Your task to perform on an android device: Search for flights from Sydney to Buenos aires Image 0: 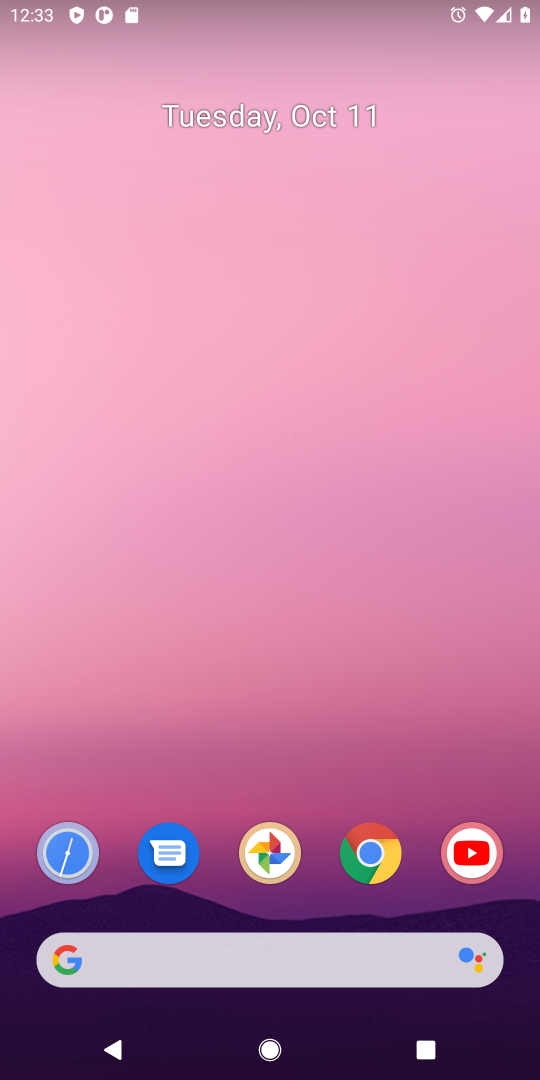
Step 0: drag from (205, 936) to (300, 32)
Your task to perform on an android device: Search for flights from Sydney to Buenos aires Image 1: 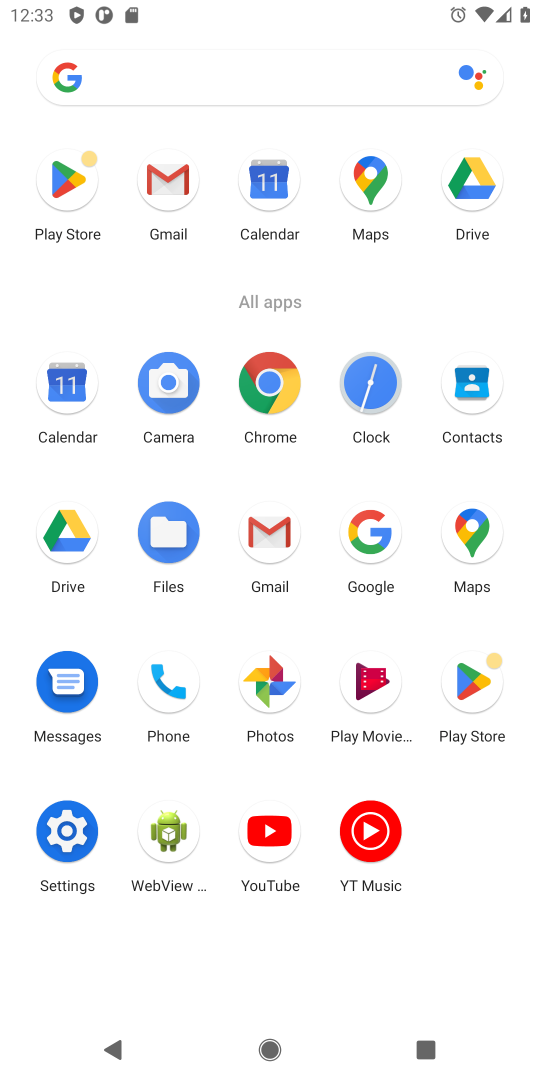
Step 1: click (266, 404)
Your task to perform on an android device: Search for flights from Sydney to Buenos aires Image 2: 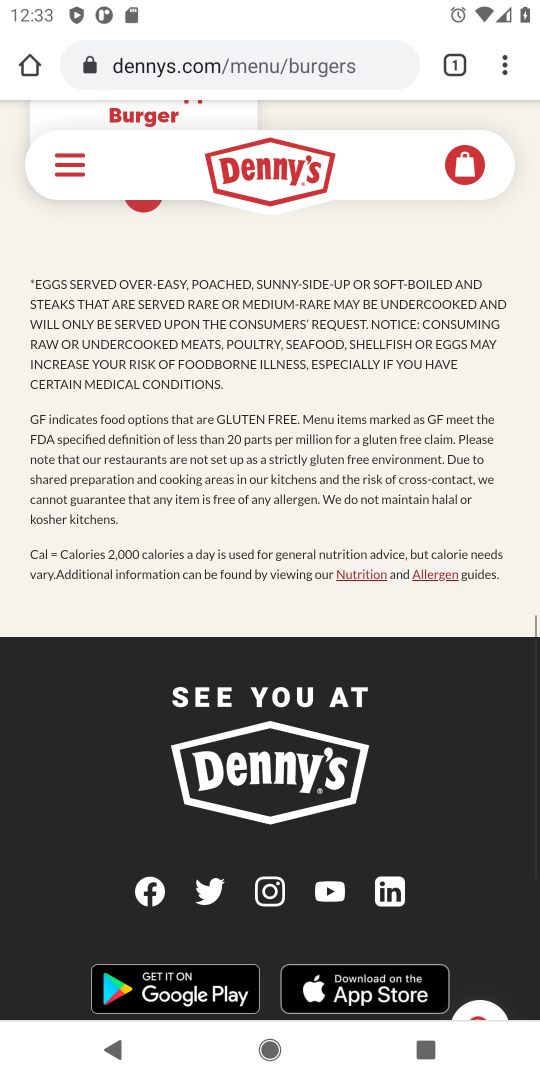
Step 2: click (229, 58)
Your task to perform on an android device: Search for flights from Sydney to Buenos aires Image 3: 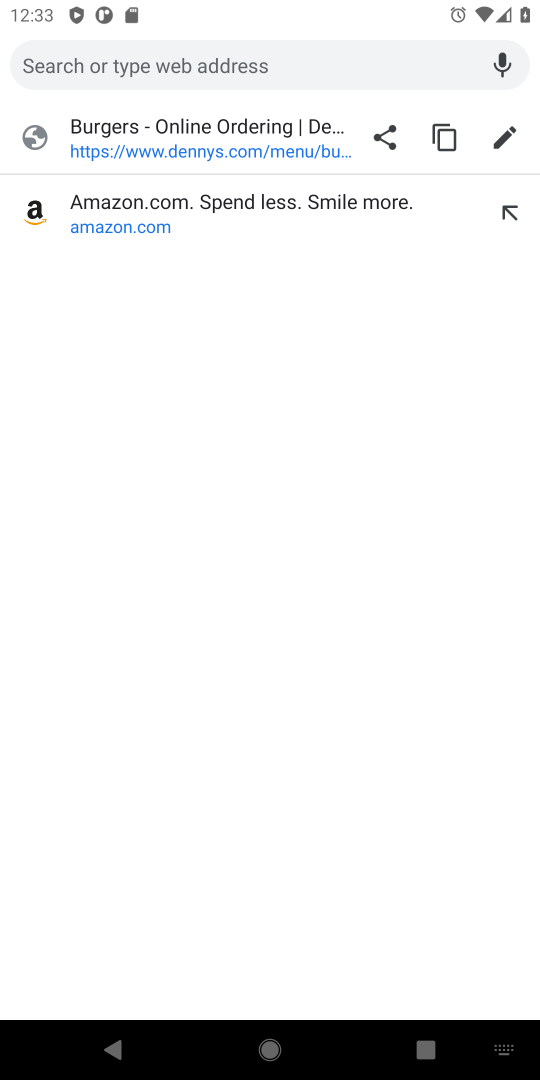
Step 3: type "flights from Sydney to Buenos aires"
Your task to perform on an android device: Search for flights from Sydney to Buenos aires Image 4: 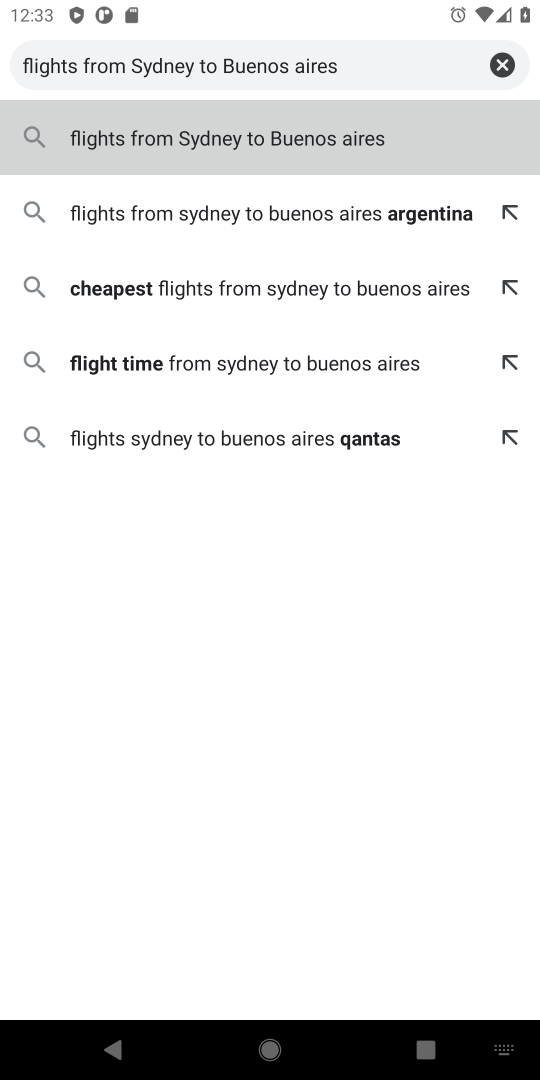
Step 4: type ""
Your task to perform on an android device: Search for flights from Sydney to Buenos aires Image 5: 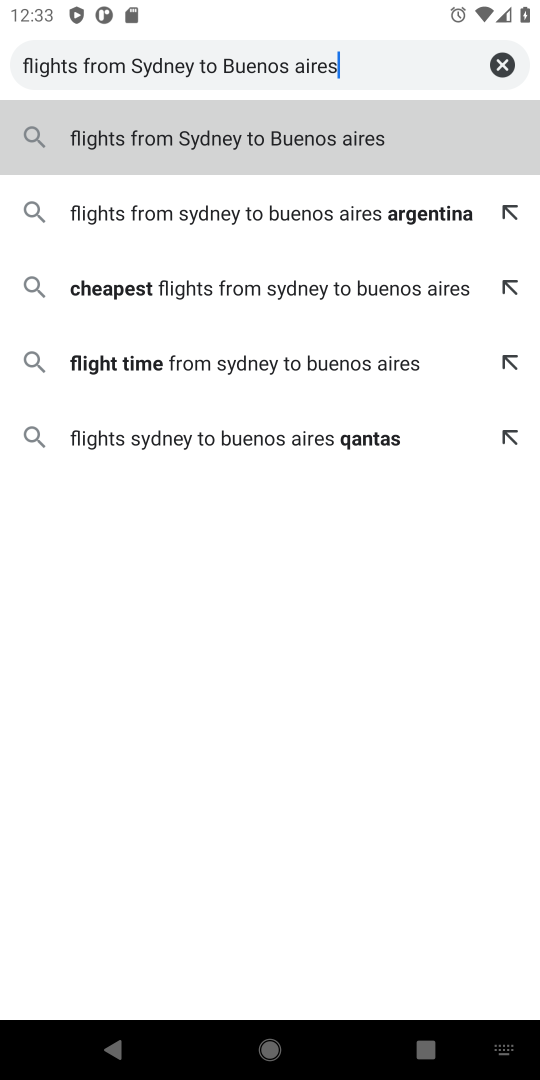
Step 5: press enter
Your task to perform on an android device: Search for flights from Sydney to Buenos aires Image 6: 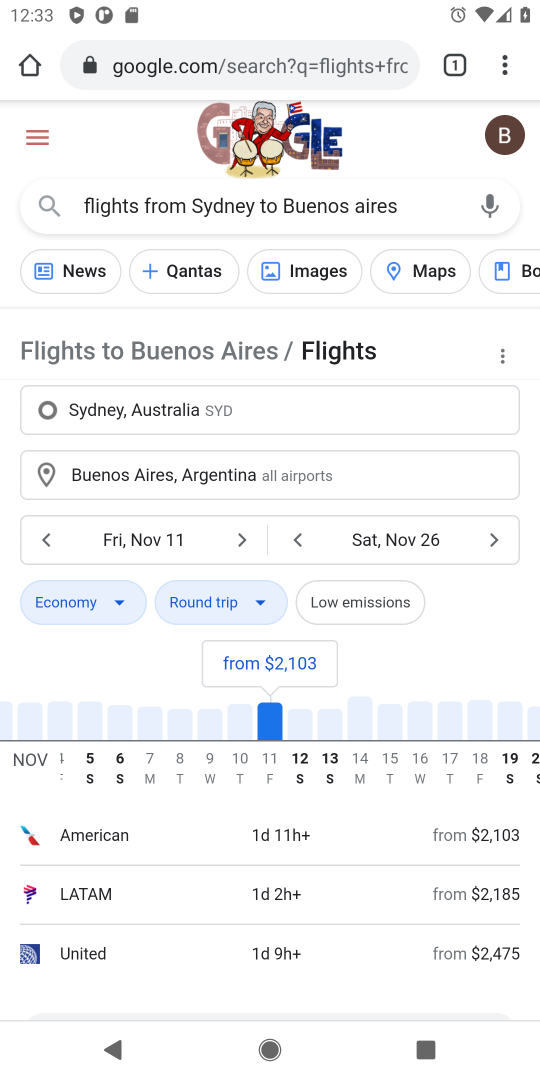
Step 6: drag from (384, 935) to (432, 175)
Your task to perform on an android device: Search for flights from Sydney to Buenos aires Image 7: 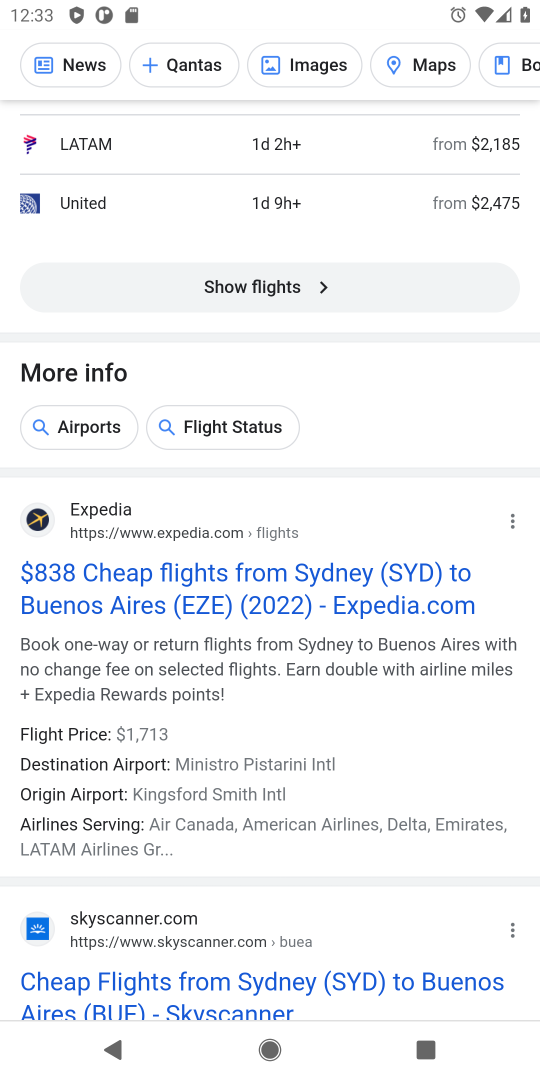
Step 7: drag from (384, 845) to (418, 545)
Your task to perform on an android device: Search for flights from Sydney to Buenos aires Image 8: 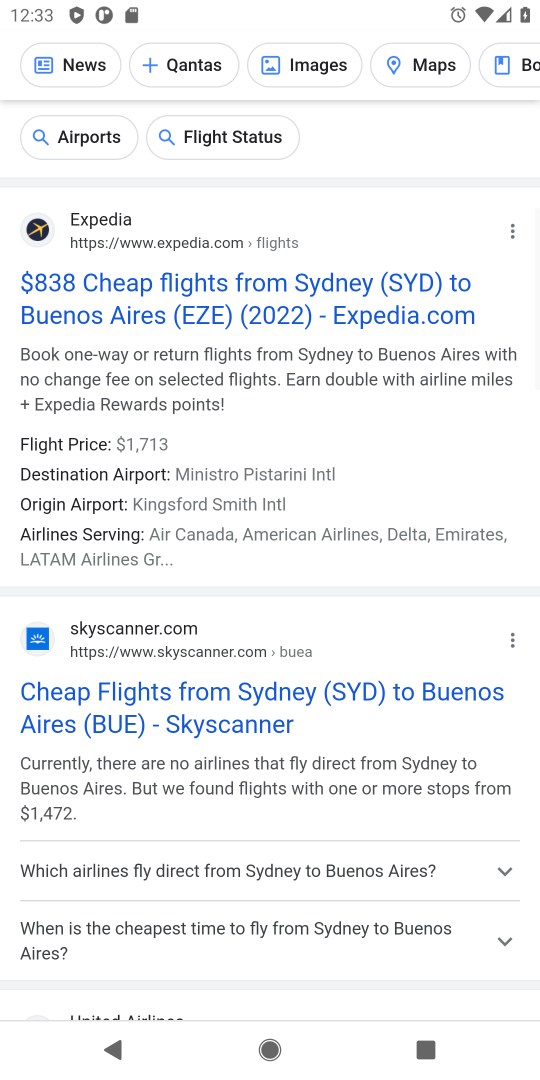
Step 8: click (353, 330)
Your task to perform on an android device: Search for flights from Sydney to Buenos aires Image 9: 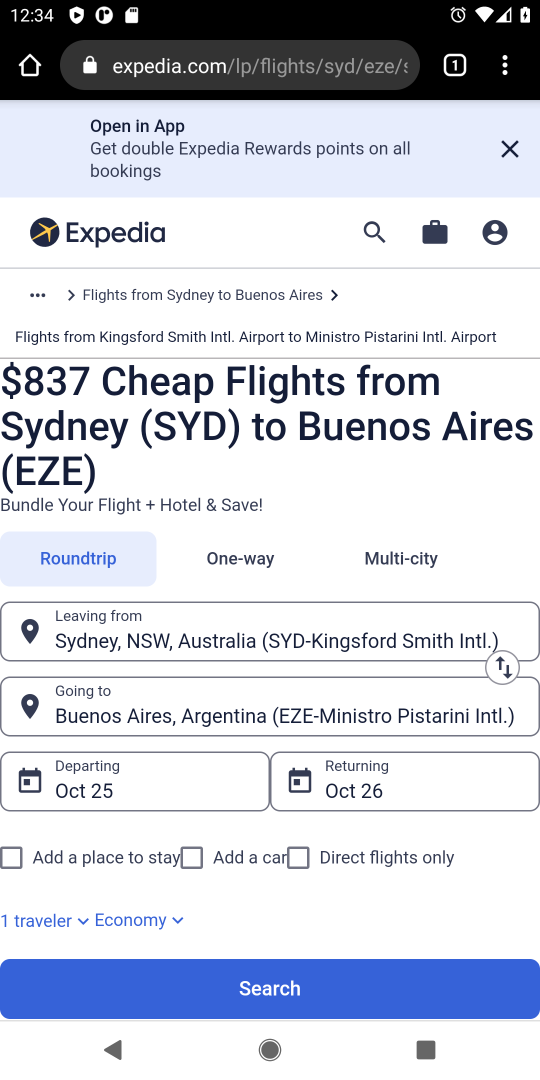
Step 9: drag from (321, 552) to (322, 266)
Your task to perform on an android device: Search for flights from Sydney to Buenos aires Image 10: 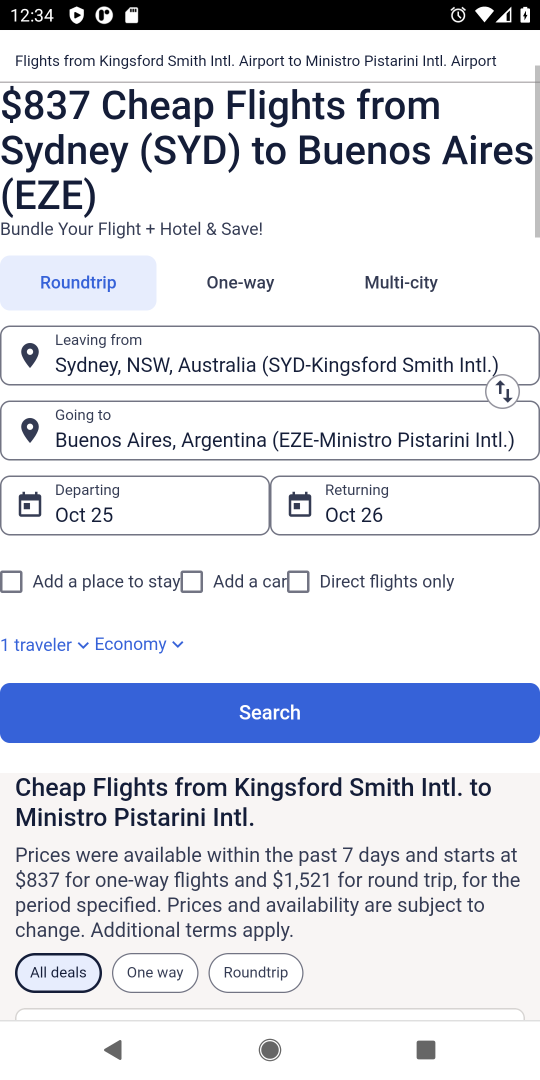
Step 10: drag from (340, 604) to (354, 216)
Your task to perform on an android device: Search for flights from Sydney to Buenos aires Image 11: 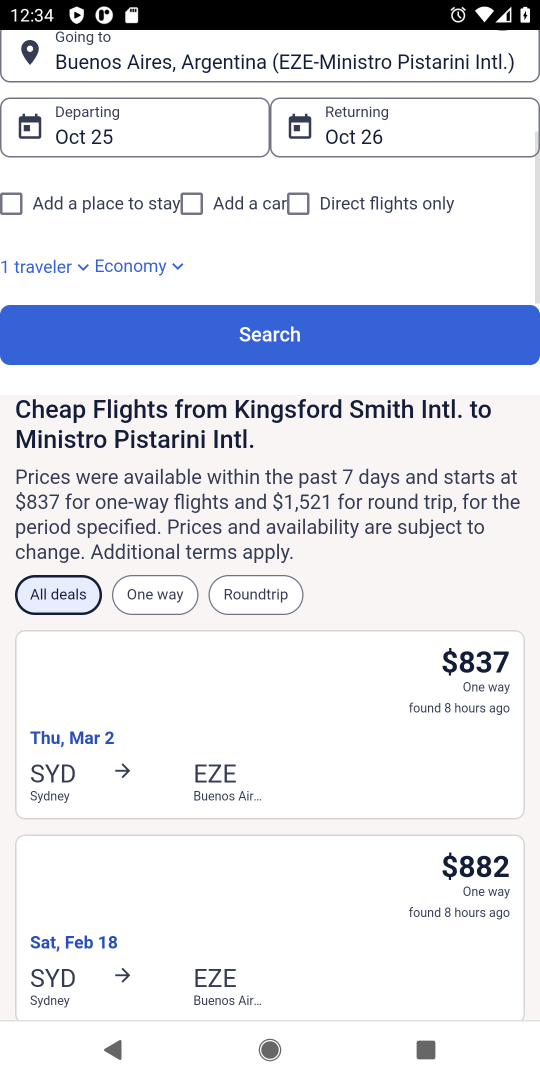
Step 11: click (285, 360)
Your task to perform on an android device: Search for flights from Sydney to Buenos aires Image 12: 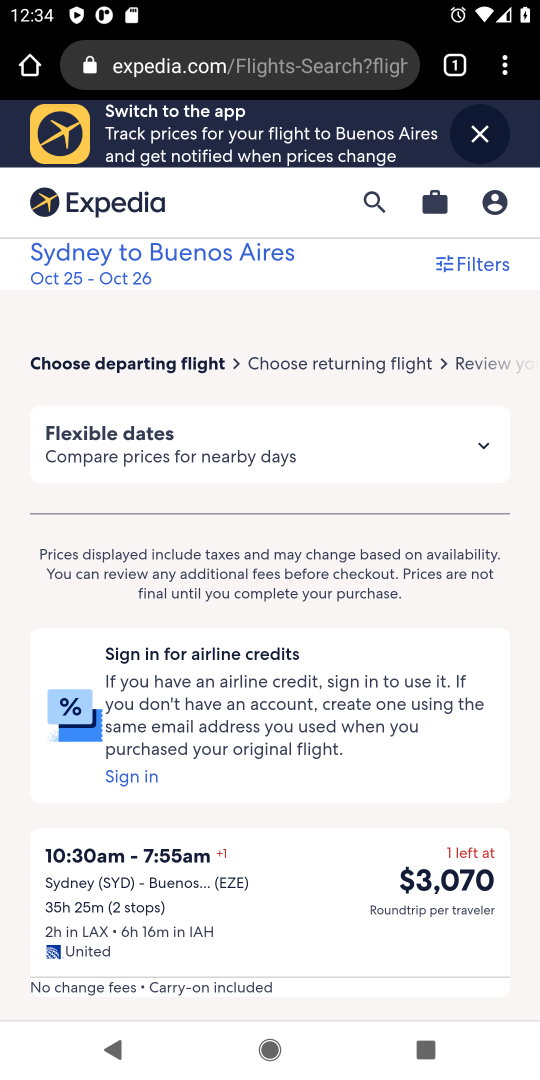
Step 12: drag from (302, 470) to (325, 207)
Your task to perform on an android device: Search for flights from Sydney to Buenos aires Image 13: 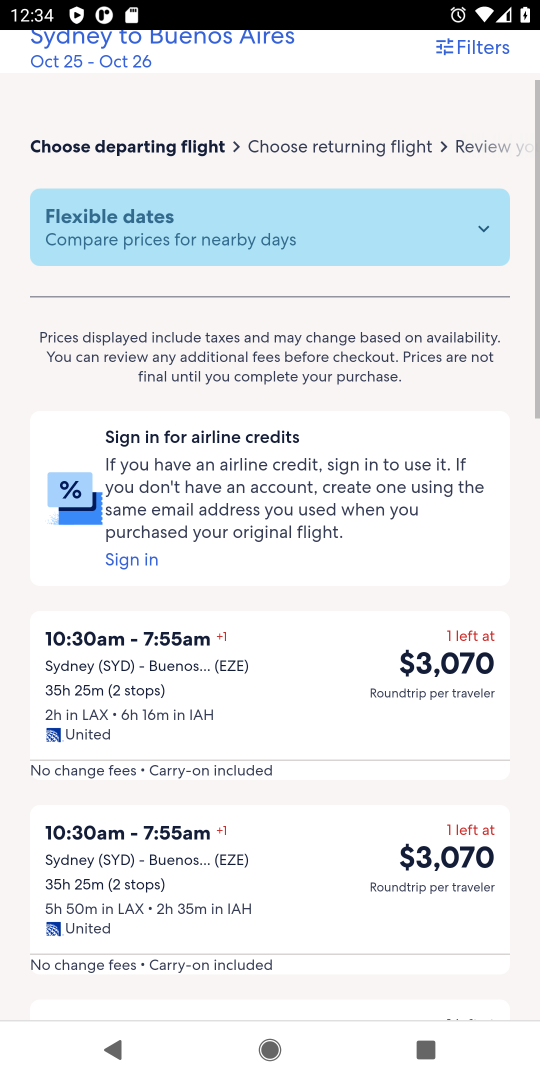
Step 13: drag from (347, 432) to (364, 261)
Your task to perform on an android device: Search for flights from Sydney to Buenos aires Image 14: 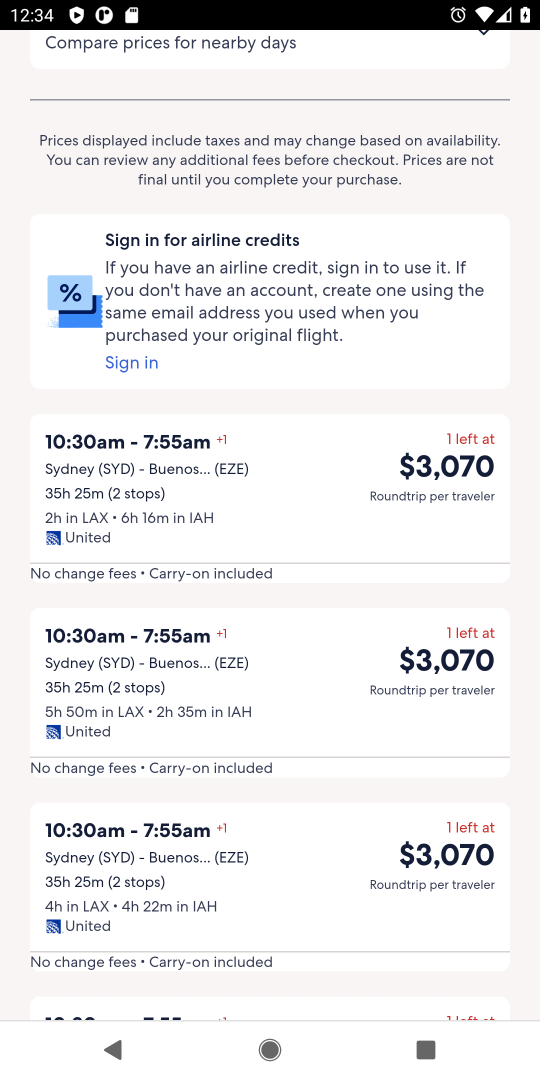
Step 14: click (326, 190)
Your task to perform on an android device: Search for flights from Sydney to Buenos aires Image 15: 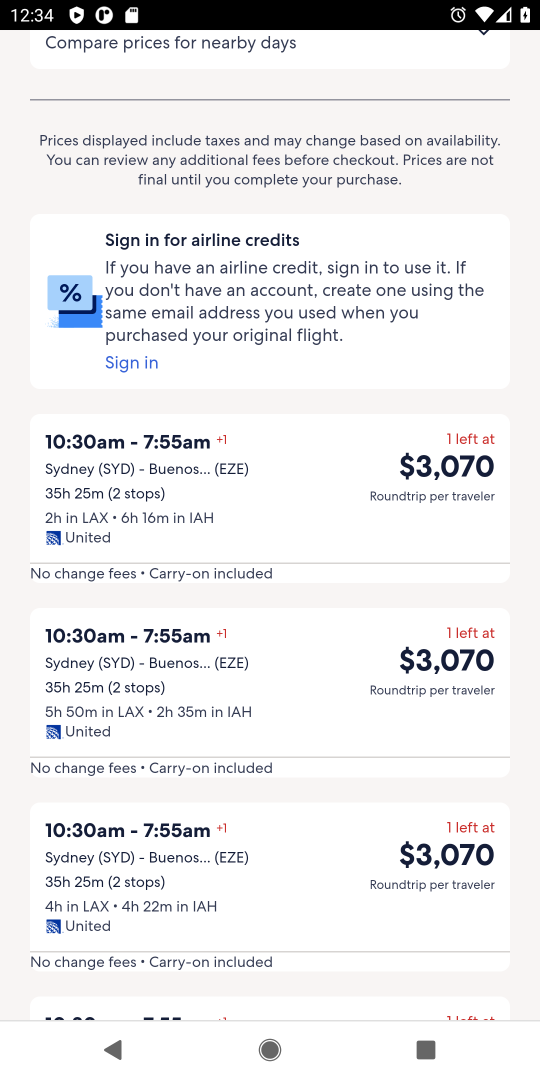
Step 15: click (358, 446)
Your task to perform on an android device: Search for flights from Sydney to Buenos aires Image 16: 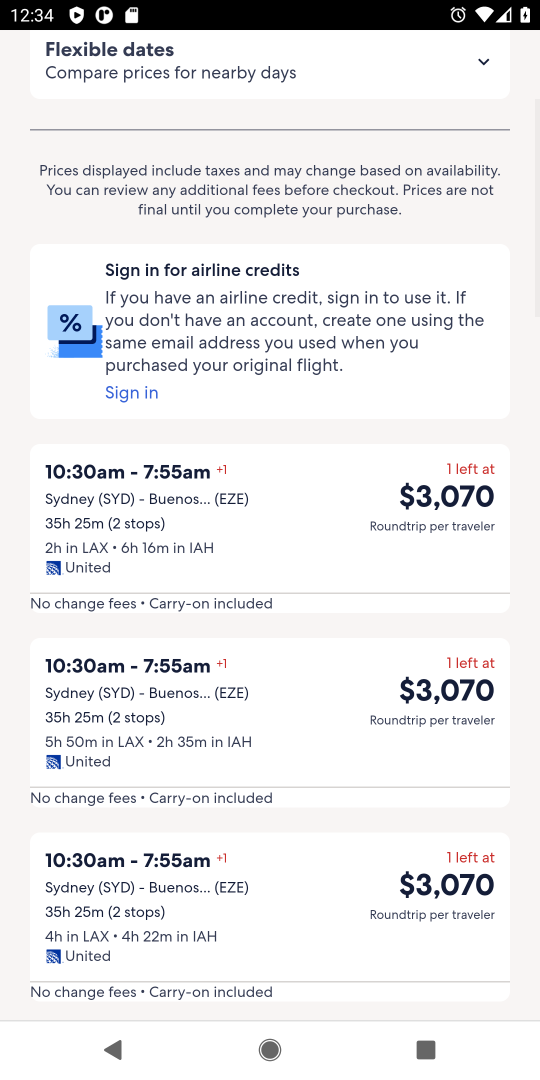
Step 16: drag from (307, 875) to (295, 430)
Your task to perform on an android device: Search for flights from Sydney to Buenos aires Image 17: 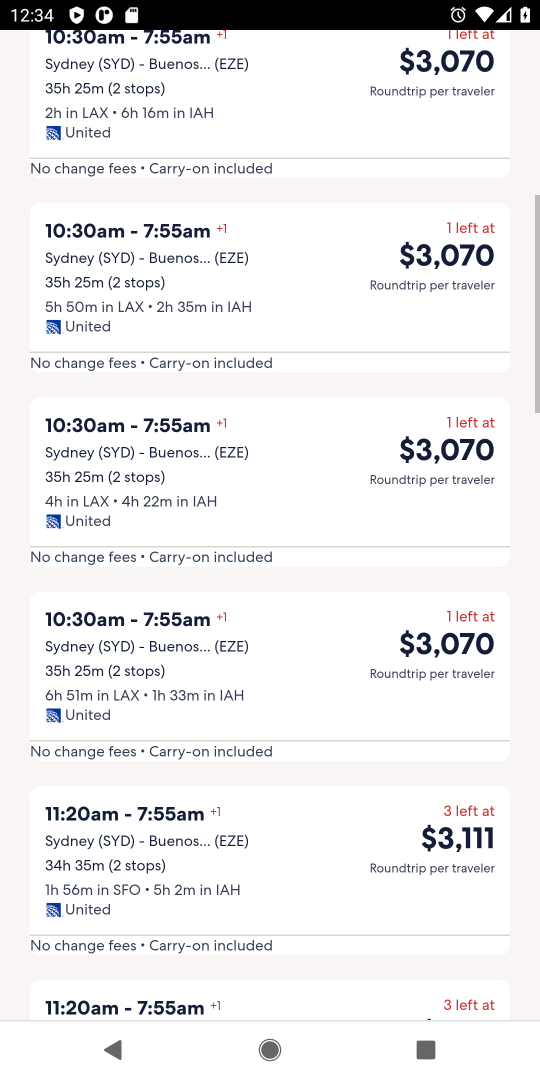
Step 17: drag from (312, 758) to (325, 417)
Your task to perform on an android device: Search for flights from Sydney to Buenos aires Image 18: 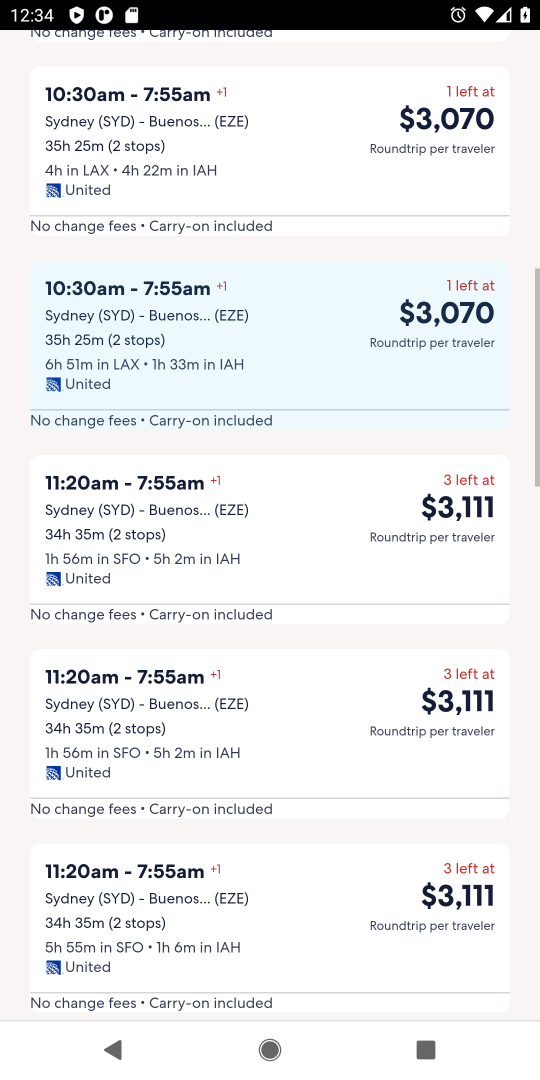
Step 18: drag from (270, 810) to (314, 335)
Your task to perform on an android device: Search for flights from Sydney to Buenos aires Image 19: 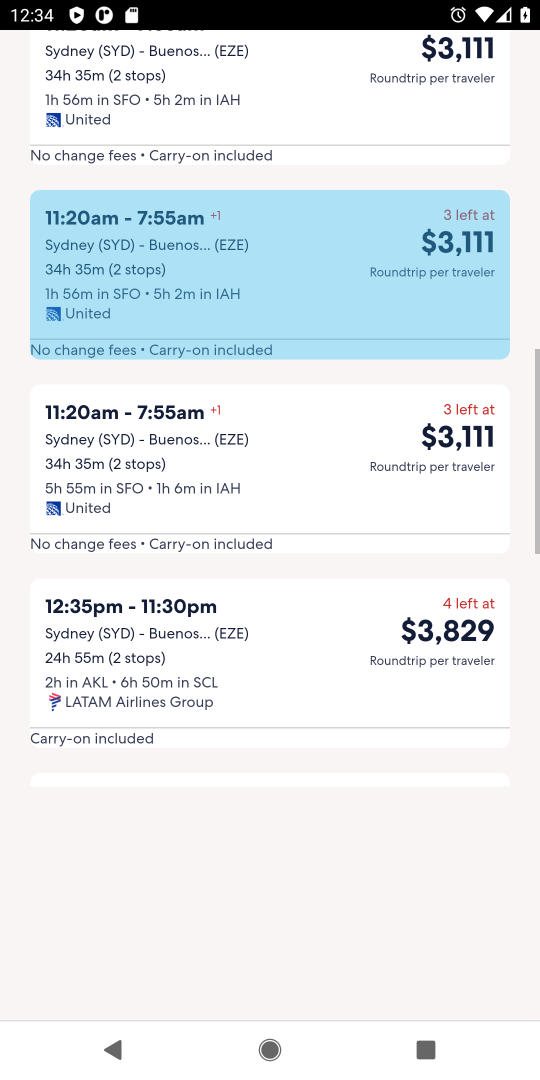
Step 19: drag from (300, 915) to (349, 345)
Your task to perform on an android device: Search for flights from Sydney to Buenos aires Image 20: 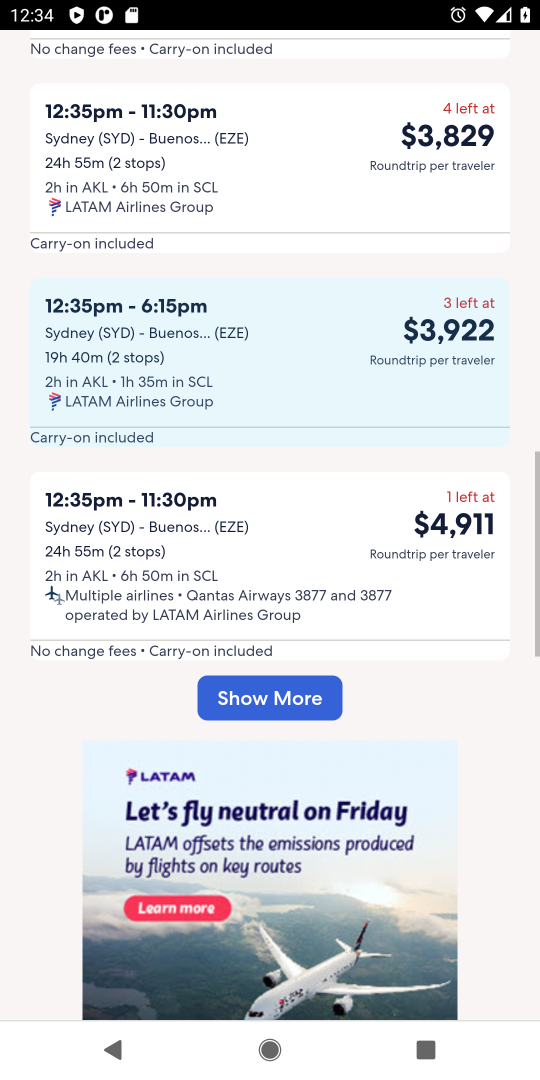
Step 20: drag from (320, 838) to (378, 413)
Your task to perform on an android device: Search for flights from Sydney to Buenos aires Image 21: 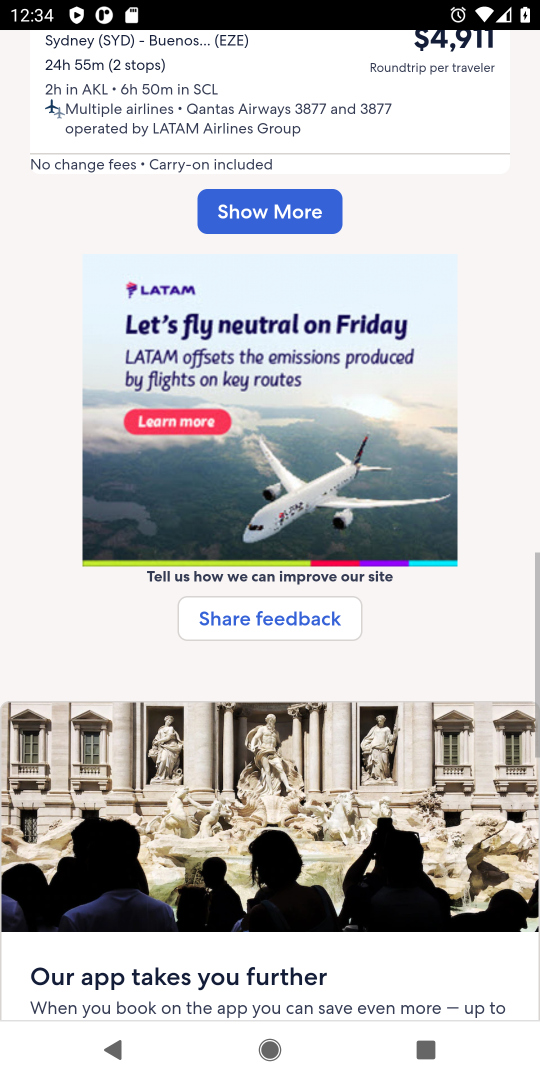
Step 21: drag from (348, 691) to (363, 489)
Your task to perform on an android device: Search for flights from Sydney to Buenos aires Image 22: 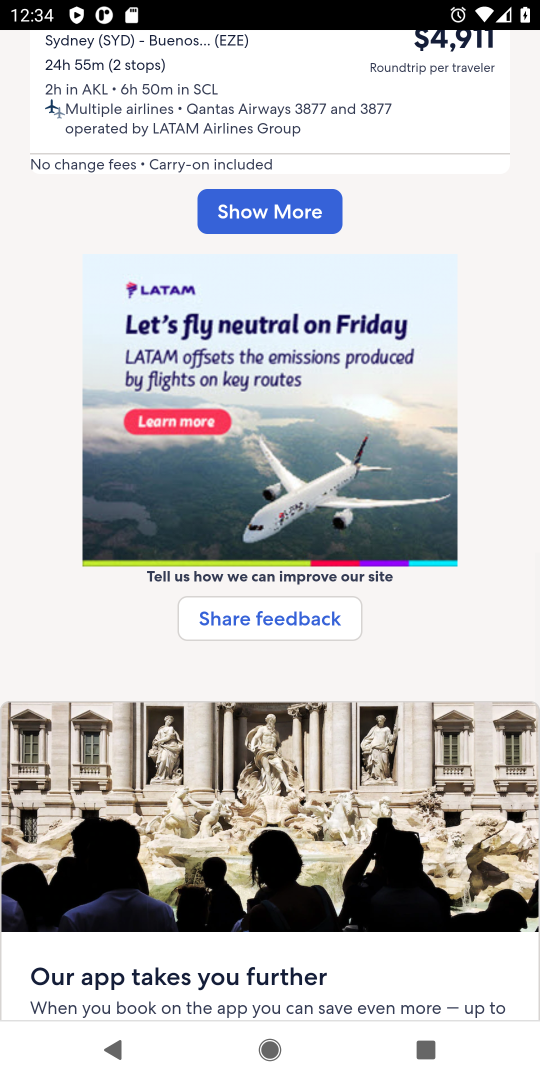
Step 22: drag from (381, 840) to (402, 566)
Your task to perform on an android device: Search for flights from Sydney to Buenos aires Image 23: 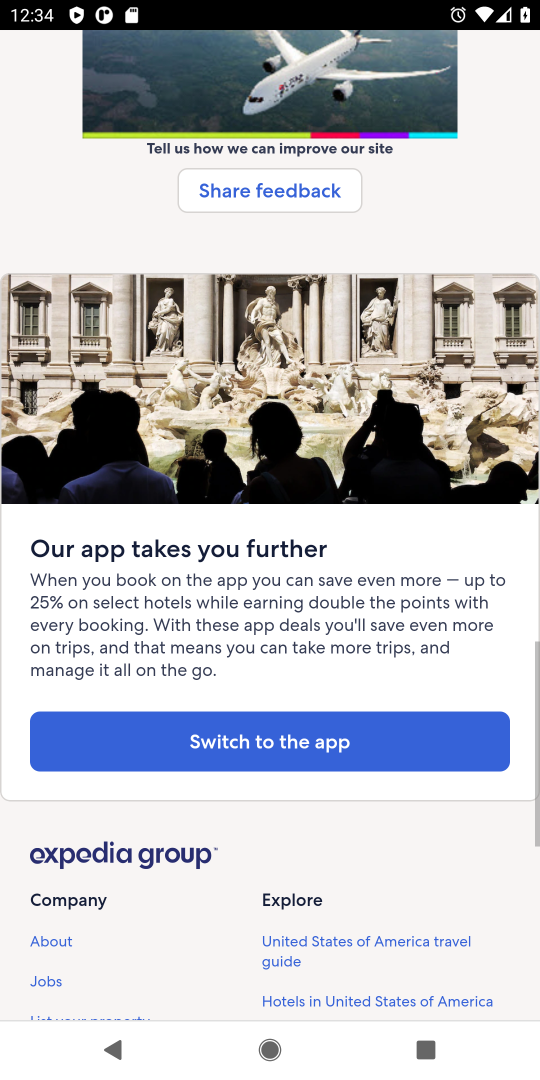
Step 23: drag from (383, 900) to (400, 619)
Your task to perform on an android device: Search for flights from Sydney to Buenos aires Image 24: 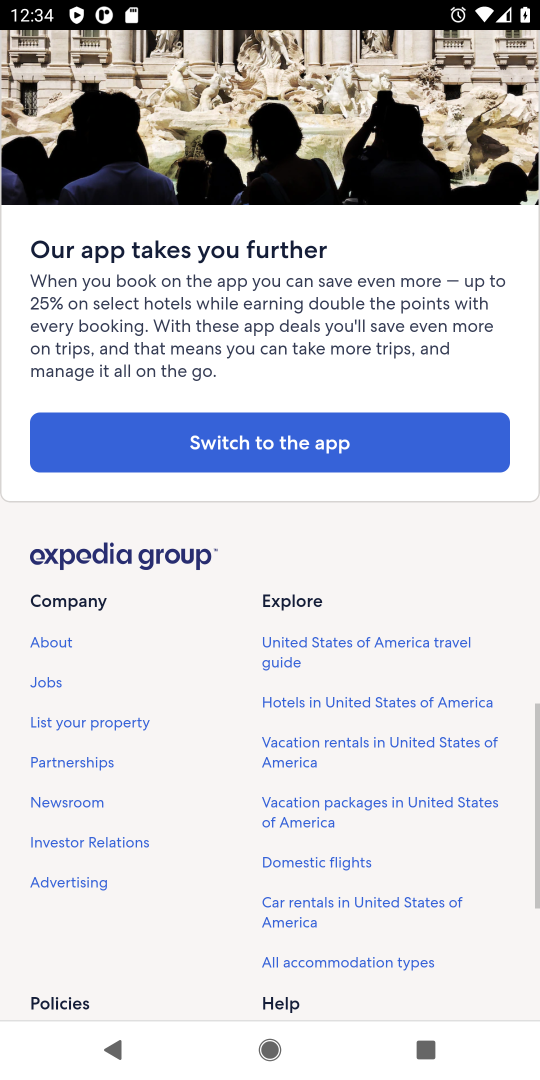
Step 24: drag from (356, 1077) to (410, 486)
Your task to perform on an android device: Search for flights from Sydney to Buenos aires Image 25: 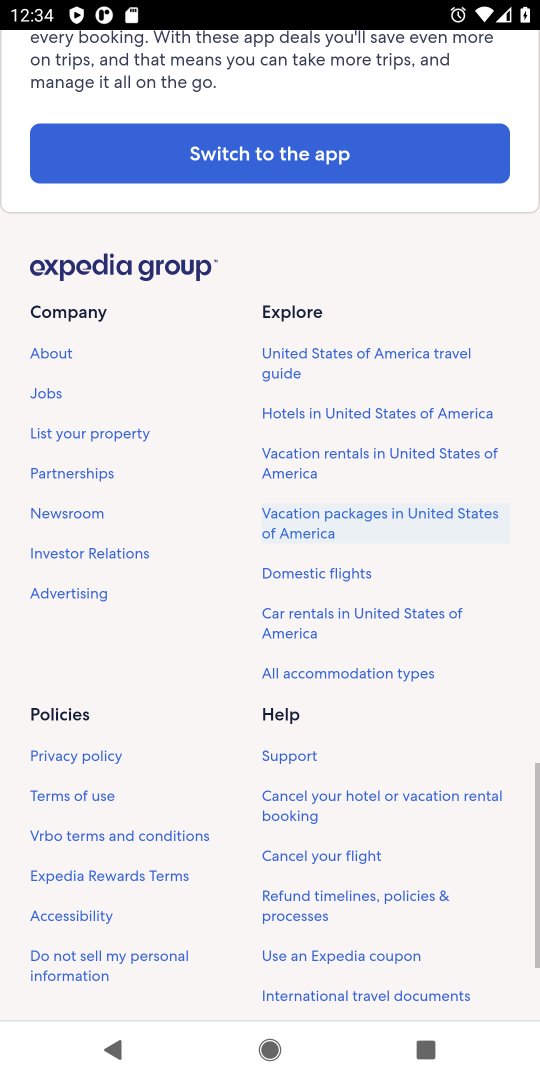
Step 25: drag from (347, 813) to (361, 518)
Your task to perform on an android device: Search for flights from Sydney to Buenos aires Image 26: 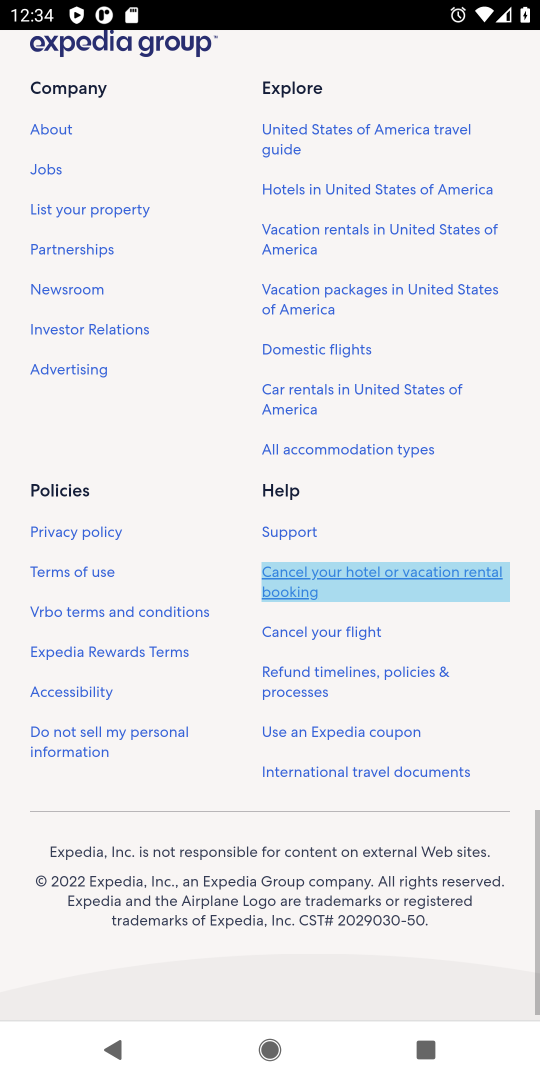
Step 26: drag from (396, 929) to (378, 517)
Your task to perform on an android device: Search for flights from Sydney to Buenos aires Image 27: 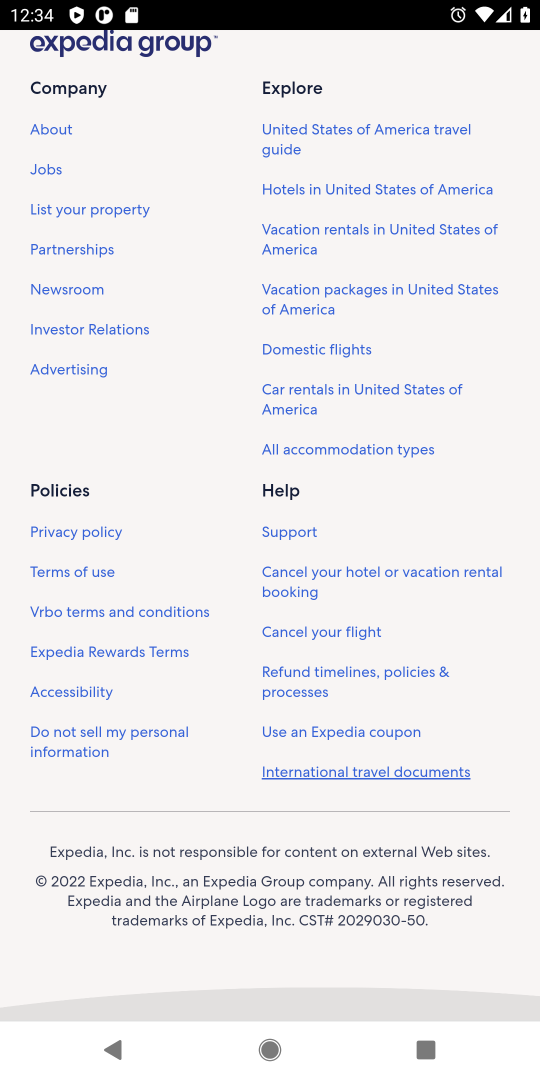
Step 27: drag from (377, 925) to (417, 592)
Your task to perform on an android device: Search for flights from Sydney to Buenos aires Image 28: 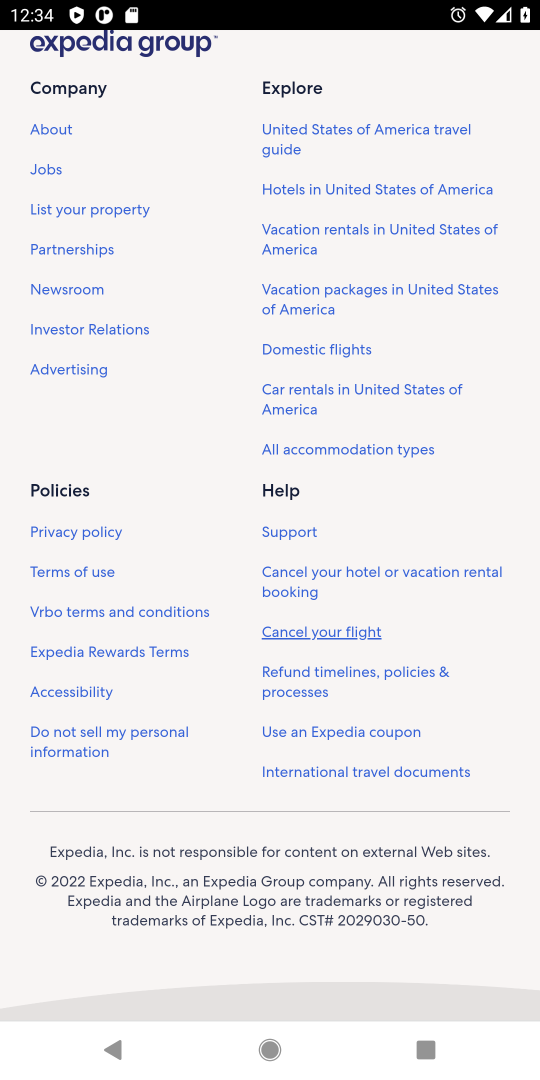
Step 28: drag from (373, 943) to (396, 643)
Your task to perform on an android device: Search for flights from Sydney to Buenos aires Image 29: 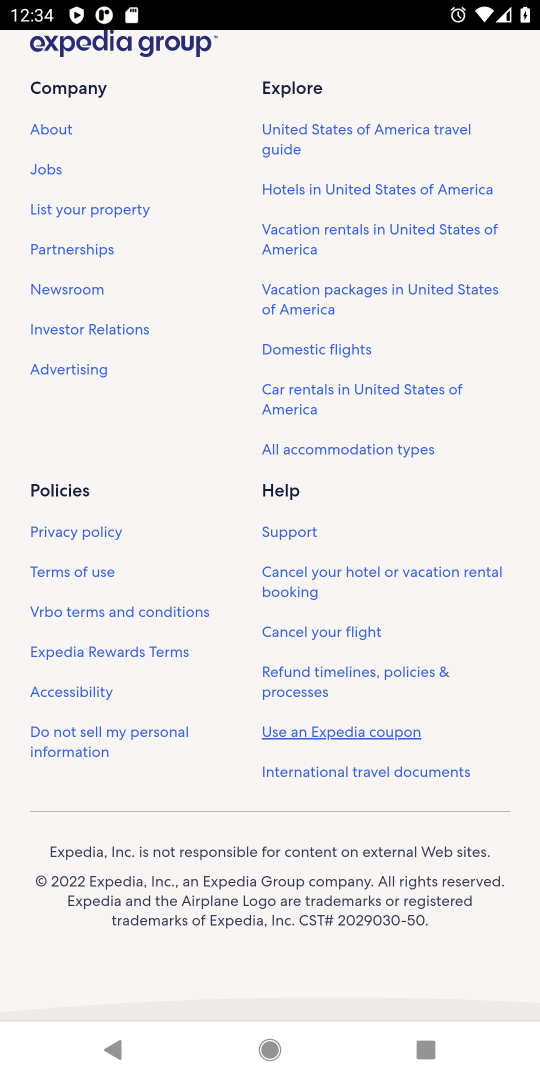
Step 29: drag from (373, 1031) to (418, 719)
Your task to perform on an android device: Search for flights from Sydney to Buenos aires Image 30: 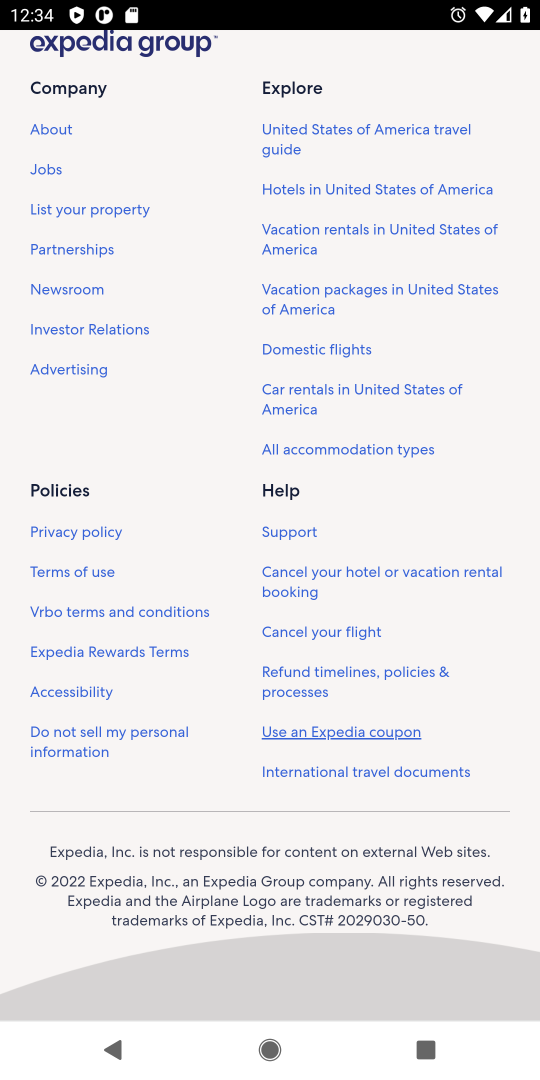
Step 30: drag from (393, 1065) to (400, 781)
Your task to perform on an android device: Search for flights from Sydney to Buenos aires Image 31: 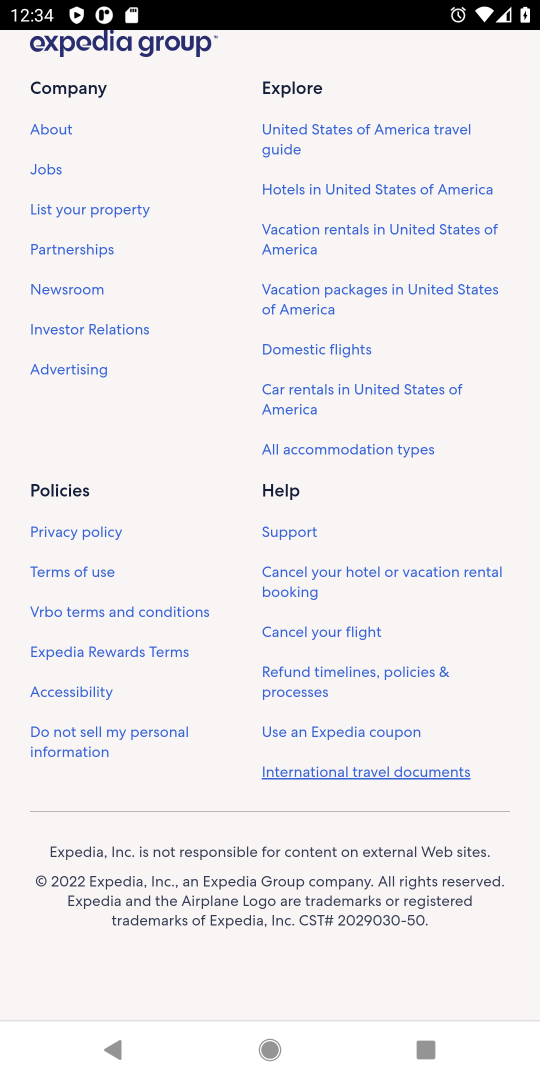
Step 31: drag from (403, 1029) to (411, 743)
Your task to perform on an android device: Search for flights from Sydney to Buenos aires Image 32: 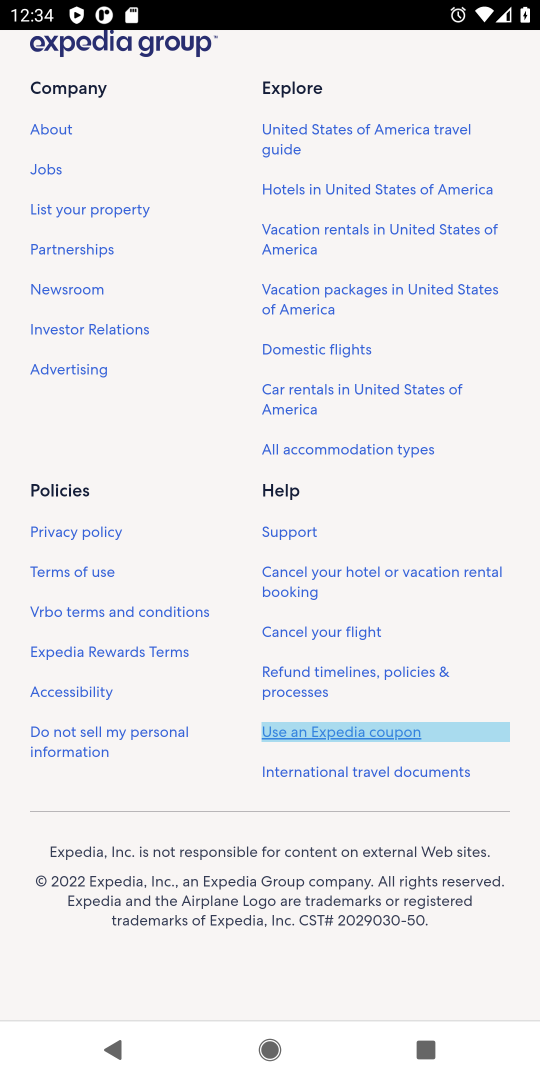
Step 32: drag from (416, 998) to (412, 775)
Your task to perform on an android device: Search for flights from Sydney to Buenos aires Image 33: 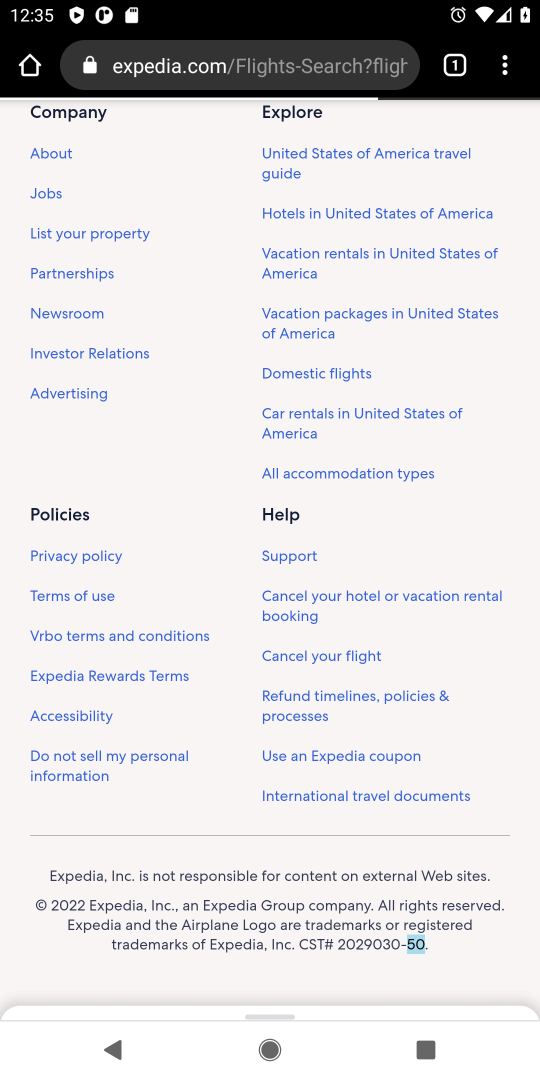
Step 33: drag from (353, 1078) to (368, 853)
Your task to perform on an android device: Search for flights from Sydney to Buenos aires Image 34: 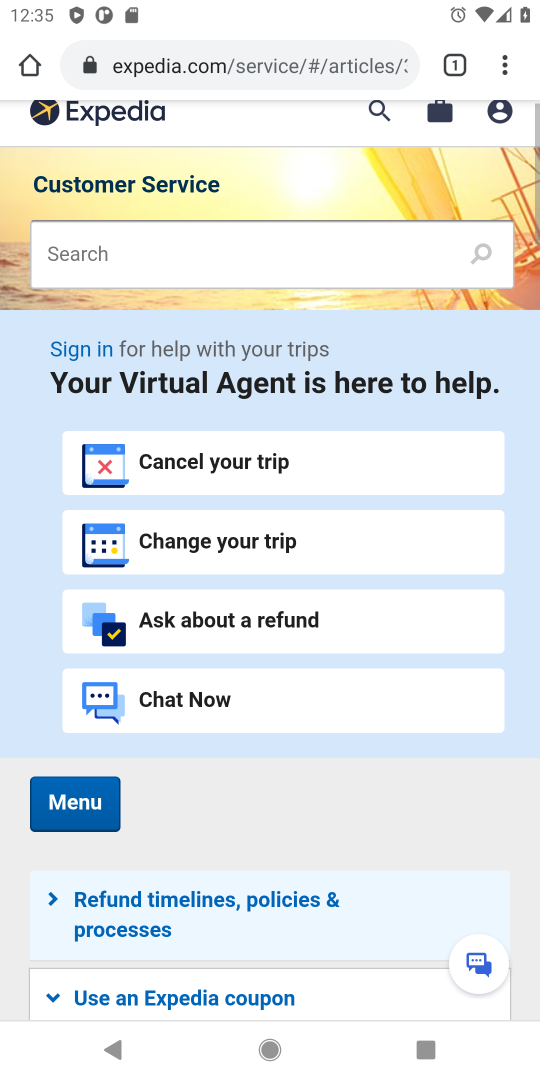
Step 34: drag from (417, 921) to (421, 774)
Your task to perform on an android device: Search for flights from Sydney to Buenos aires Image 35: 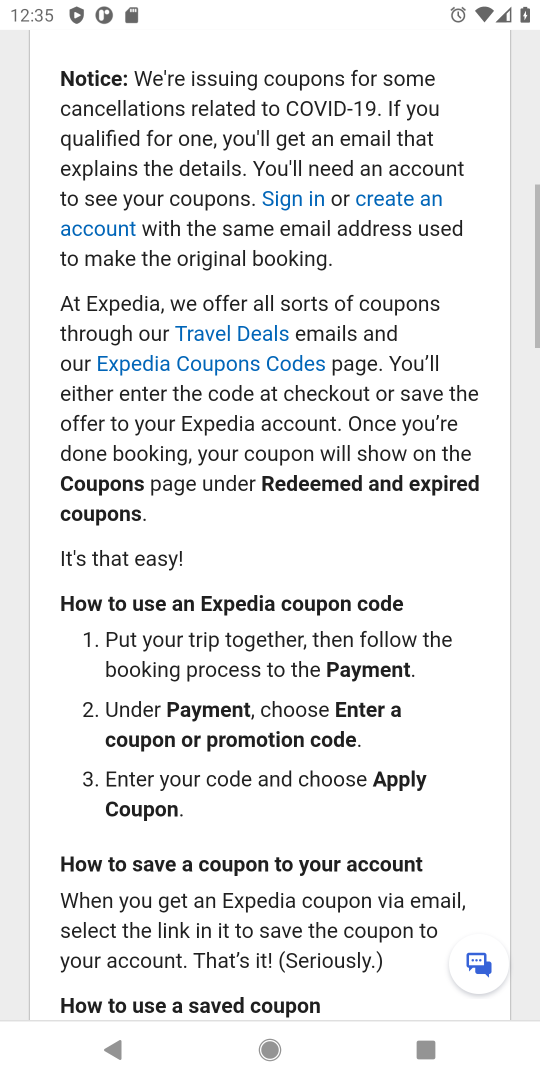
Step 35: drag from (435, 944) to (443, 787)
Your task to perform on an android device: Search for flights from Sydney to Buenos aires Image 36: 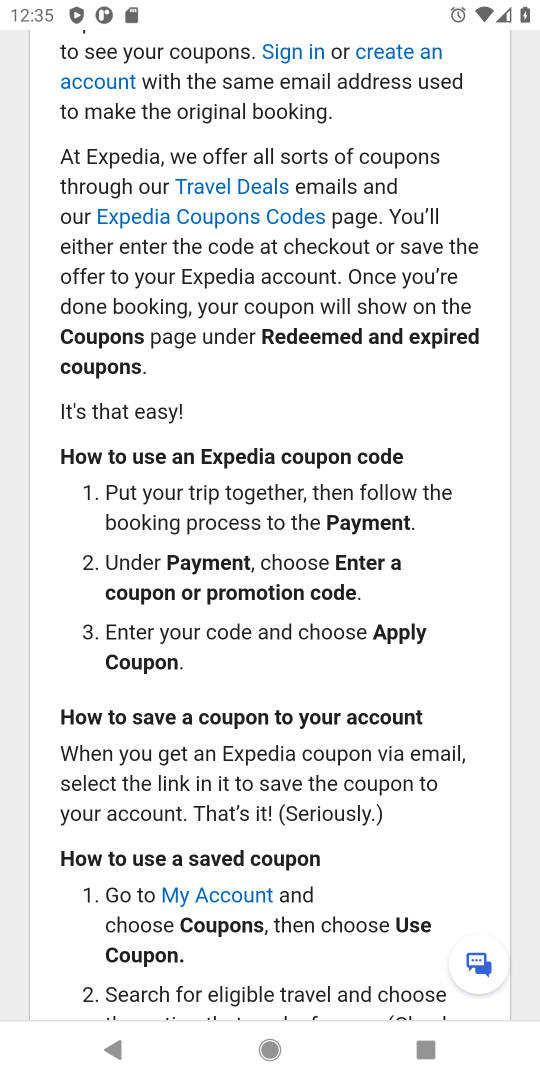
Step 36: drag from (525, 934) to (399, 474)
Your task to perform on an android device: Search for flights from Sydney to Buenos aires Image 37: 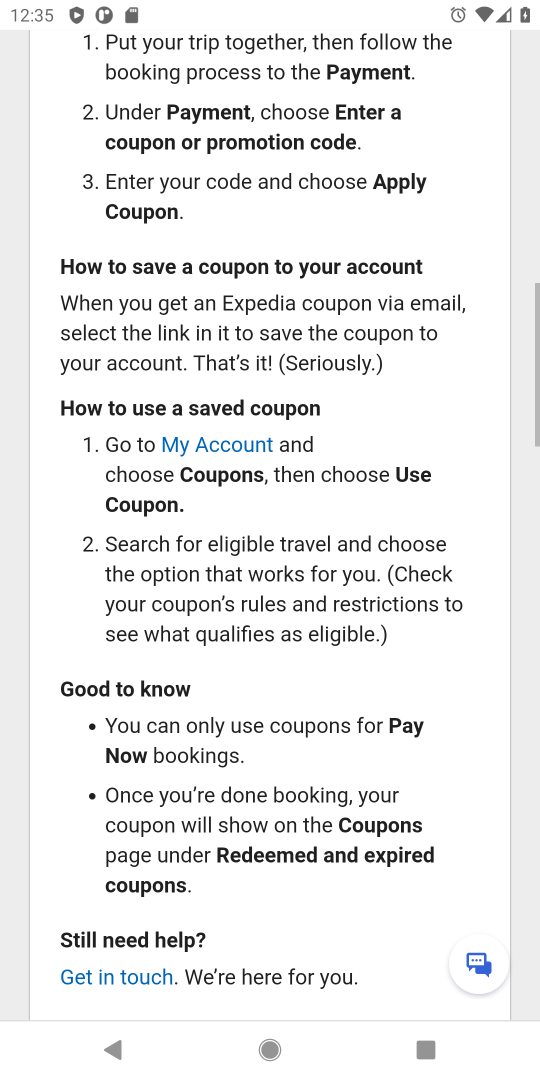
Step 37: drag from (330, 734) to (420, 360)
Your task to perform on an android device: Search for flights from Sydney to Buenos aires Image 38: 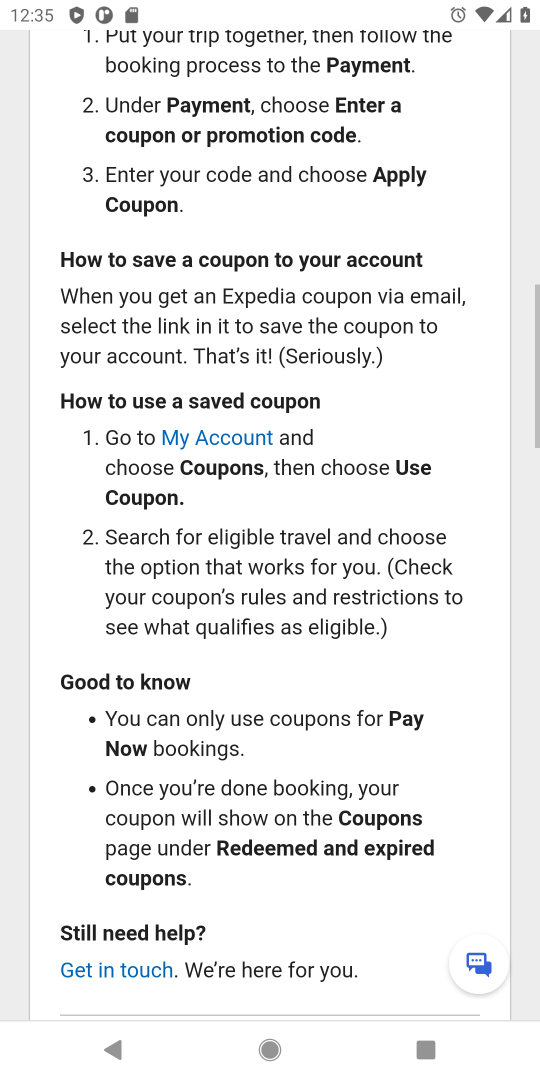
Step 38: drag from (319, 659) to (386, 341)
Your task to perform on an android device: Search for flights from Sydney to Buenos aires Image 39: 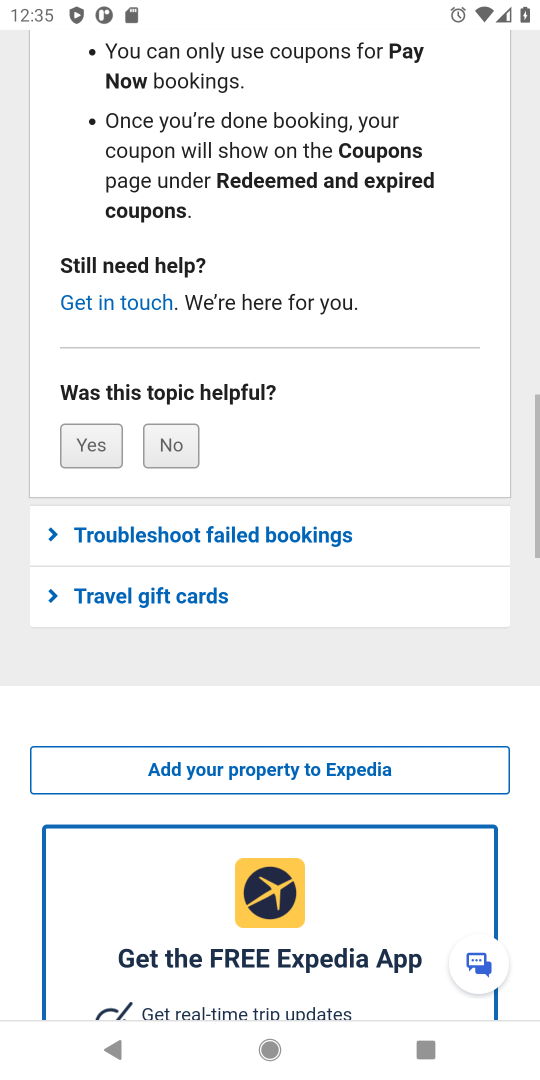
Step 39: drag from (319, 577) to (374, 372)
Your task to perform on an android device: Search for flights from Sydney to Buenos aires Image 40: 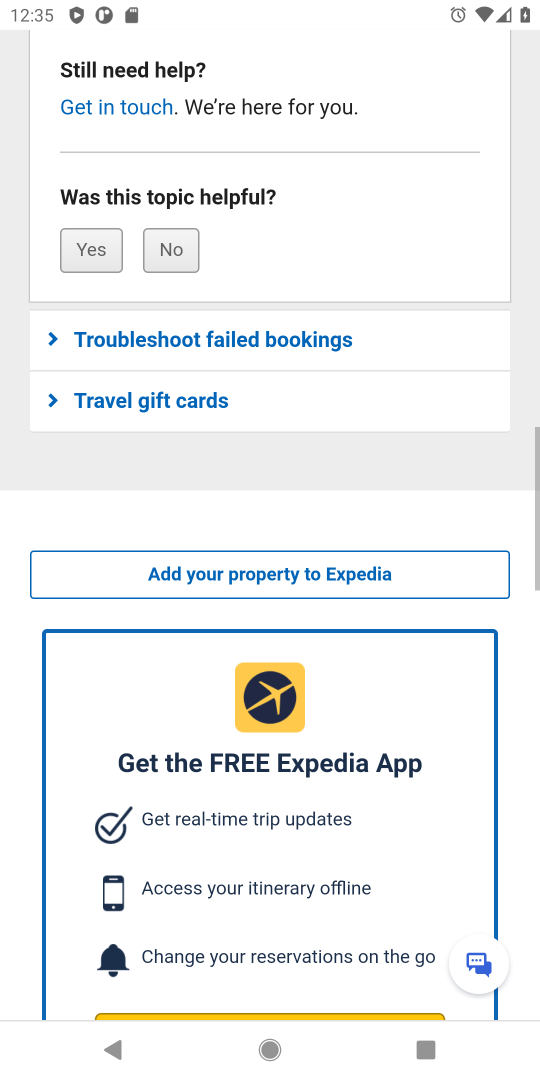
Step 40: drag from (287, 610) to (352, 405)
Your task to perform on an android device: Search for flights from Sydney to Buenos aires Image 41: 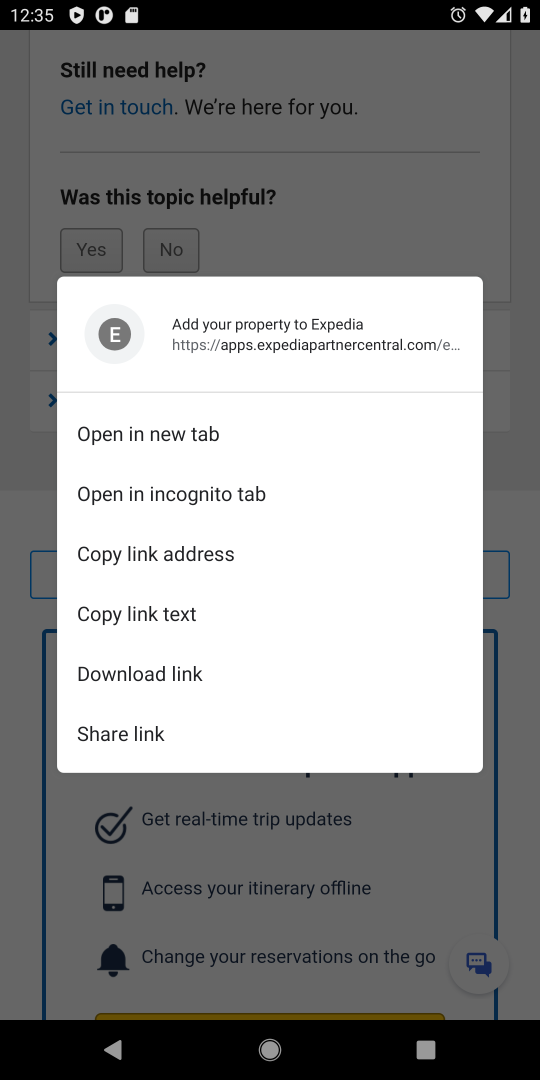
Step 41: click (511, 276)
Your task to perform on an android device: Search for flights from Sydney to Buenos aires Image 42: 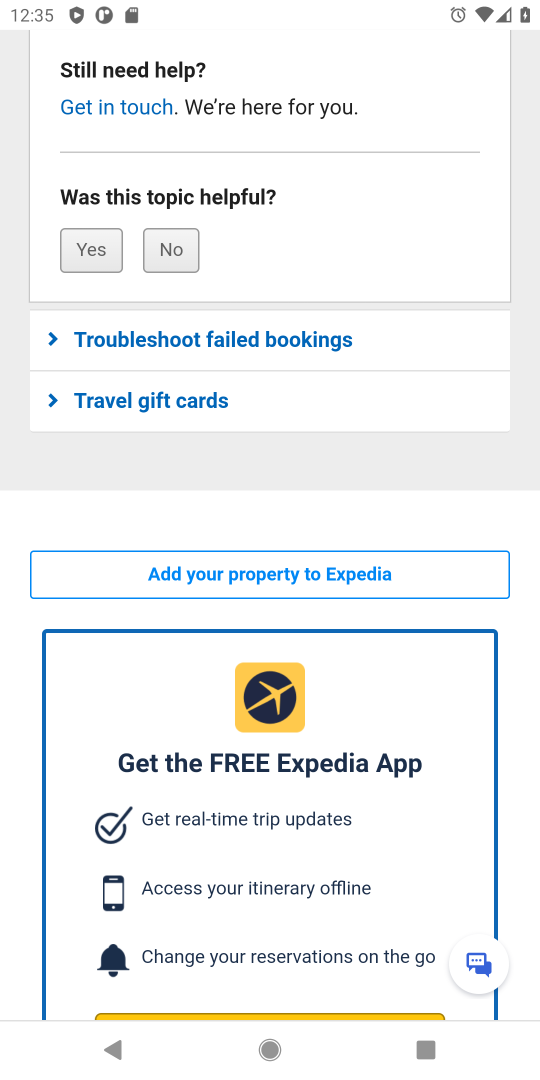
Step 42: drag from (461, 525) to (509, 244)
Your task to perform on an android device: Search for flights from Sydney to Buenos aires Image 43: 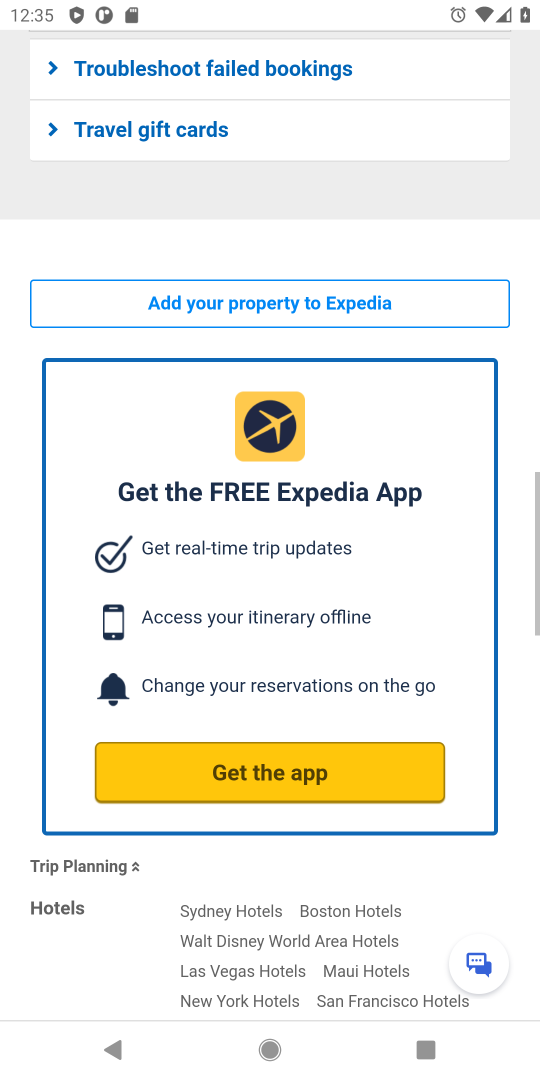
Step 43: drag from (500, 468) to (533, 271)
Your task to perform on an android device: Search for flights from Sydney to Buenos aires Image 44: 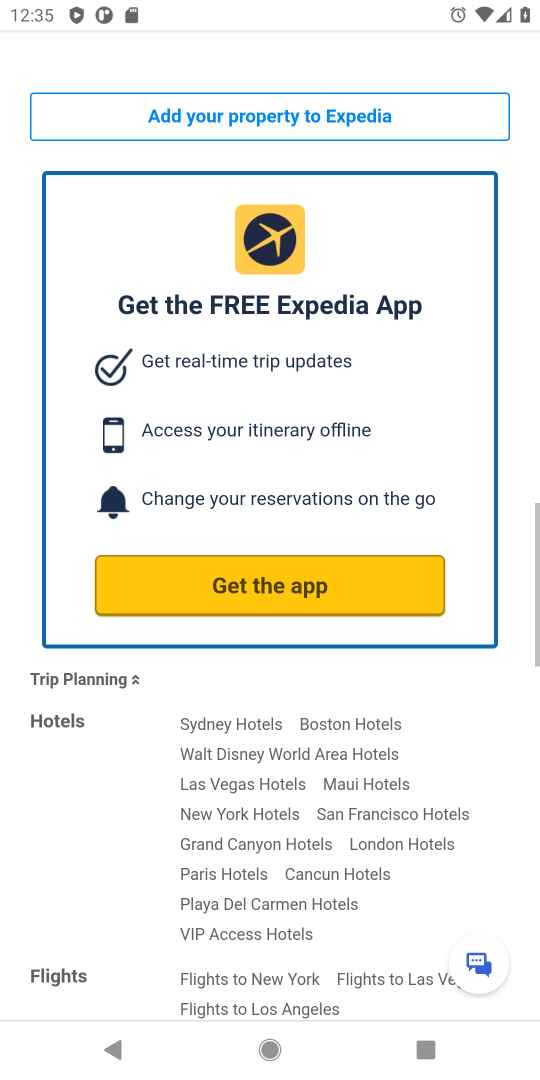
Step 44: drag from (499, 488) to (539, 344)
Your task to perform on an android device: Search for flights from Sydney to Buenos aires Image 45: 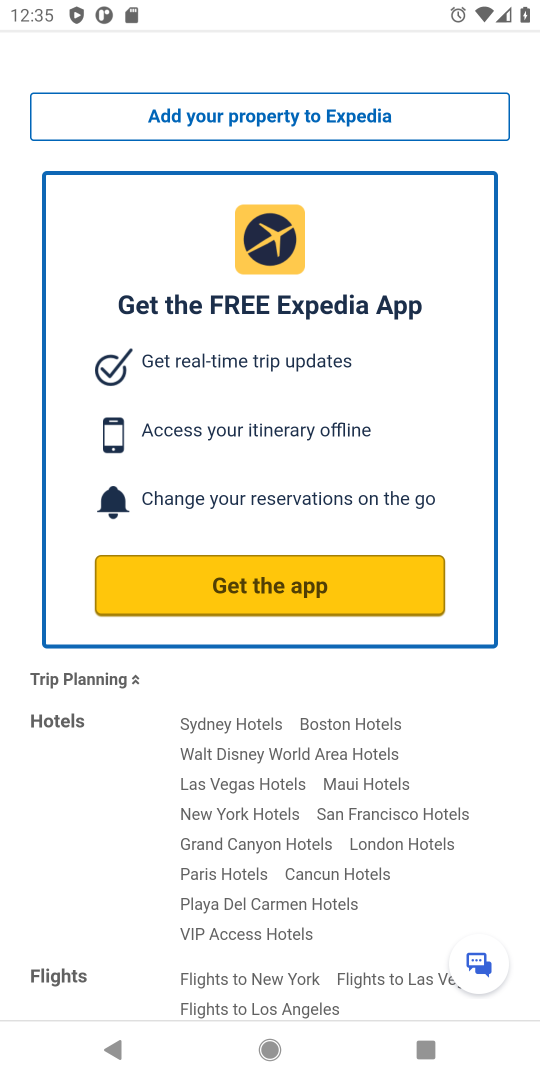
Step 45: drag from (508, 516) to (540, 336)
Your task to perform on an android device: Search for flights from Sydney to Buenos aires Image 46: 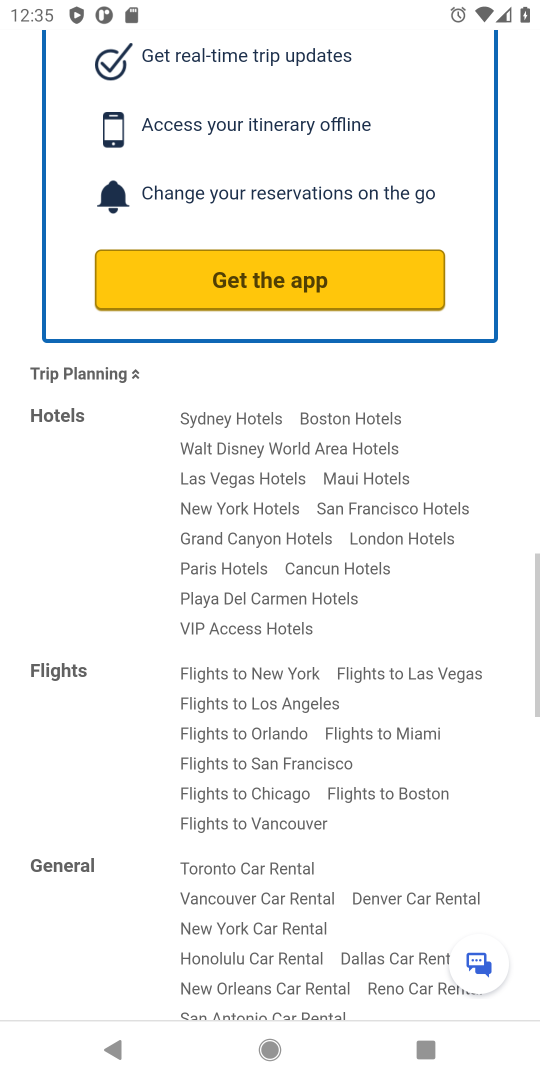
Step 46: drag from (486, 543) to (518, 288)
Your task to perform on an android device: Search for flights from Sydney to Buenos aires Image 47: 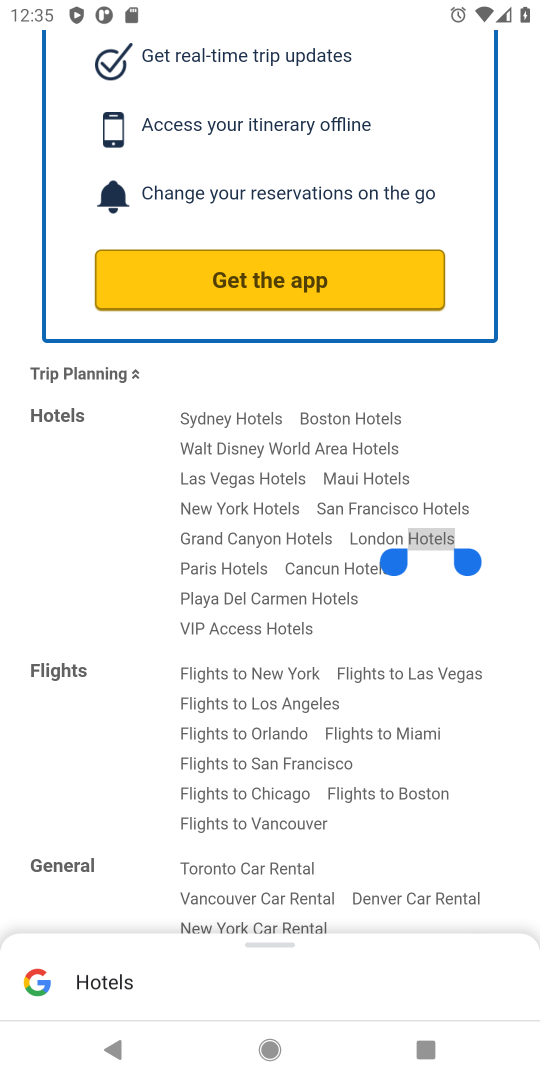
Step 47: drag from (506, 381) to (521, 298)
Your task to perform on an android device: Search for flights from Sydney to Buenos aires Image 48: 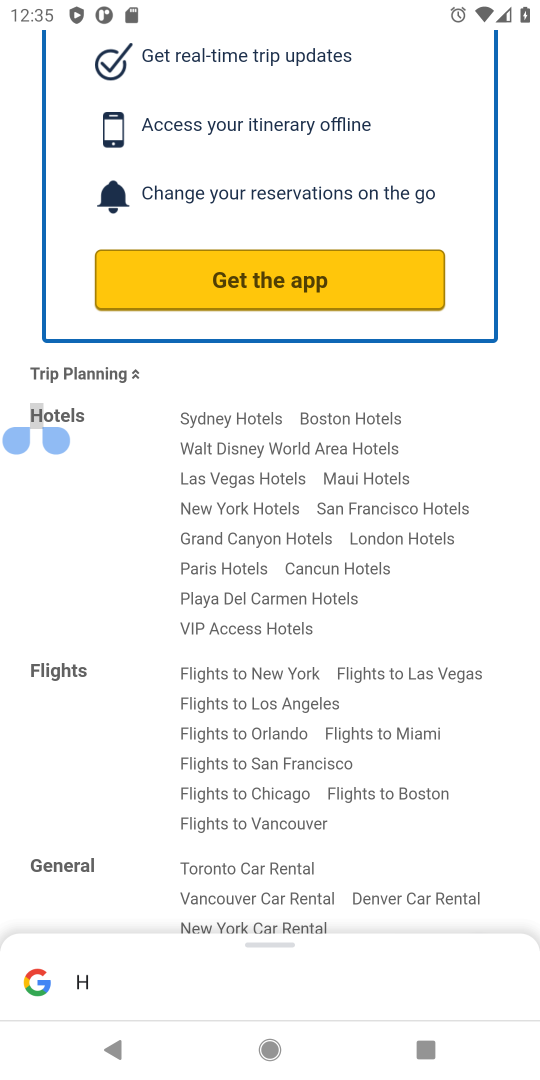
Step 48: drag from (516, 415) to (540, 312)
Your task to perform on an android device: Search for flights from Sydney to Buenos aires Image 49: 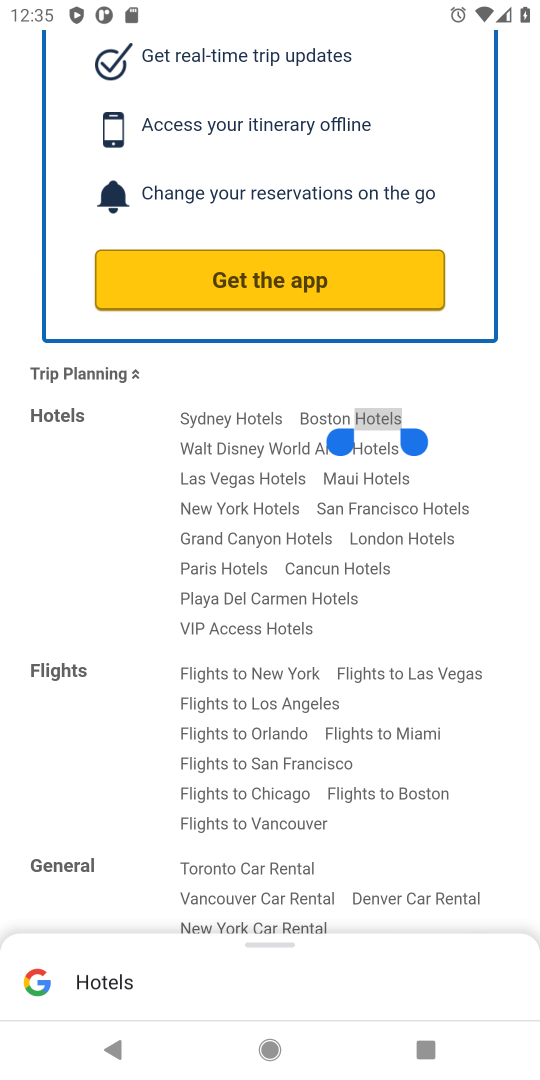
Step 49: click (512, 451)
Your task to perform on an android device: Search for flights from Sydney to Buenos aires Image 50: 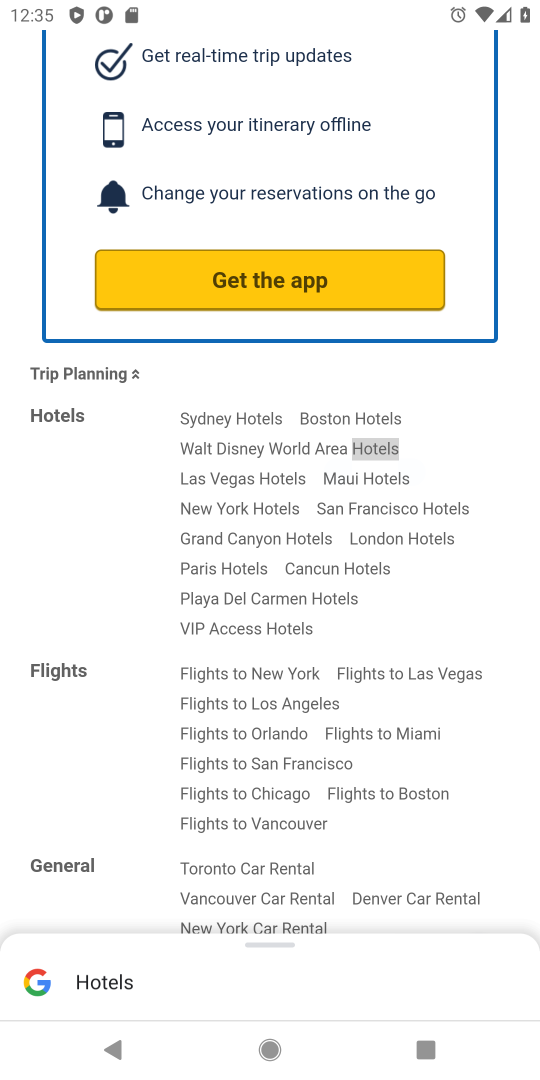
Step 50: drag from (448, 542) to (469, 266)
Your task to perform on an android device: Search for flights from Sydney to Buenos aires Image 51: 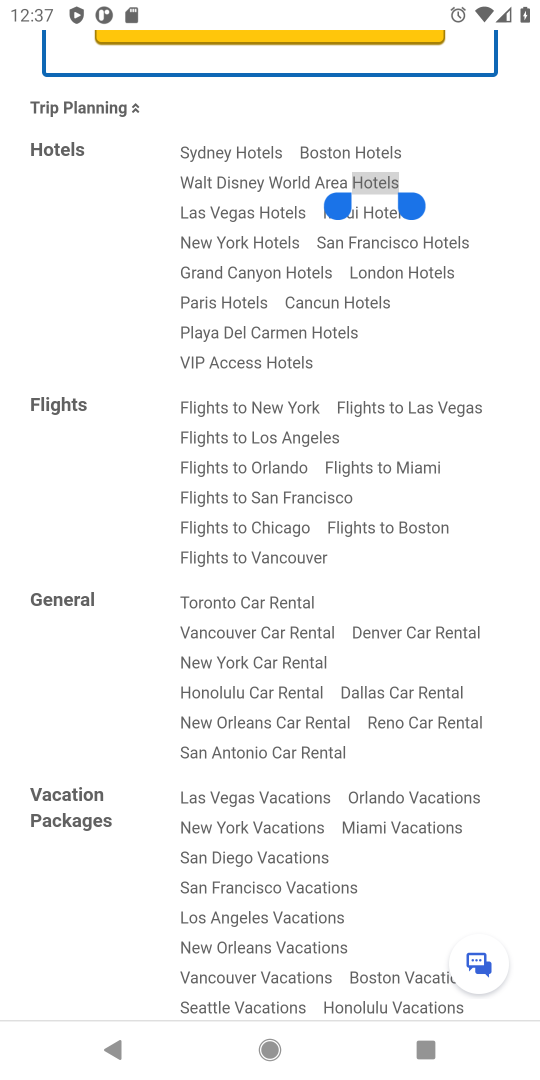
Step 51: click (406, 284)
Your task to perform on an android device: Search for flights from Sydney to Buenos aires Image 52: 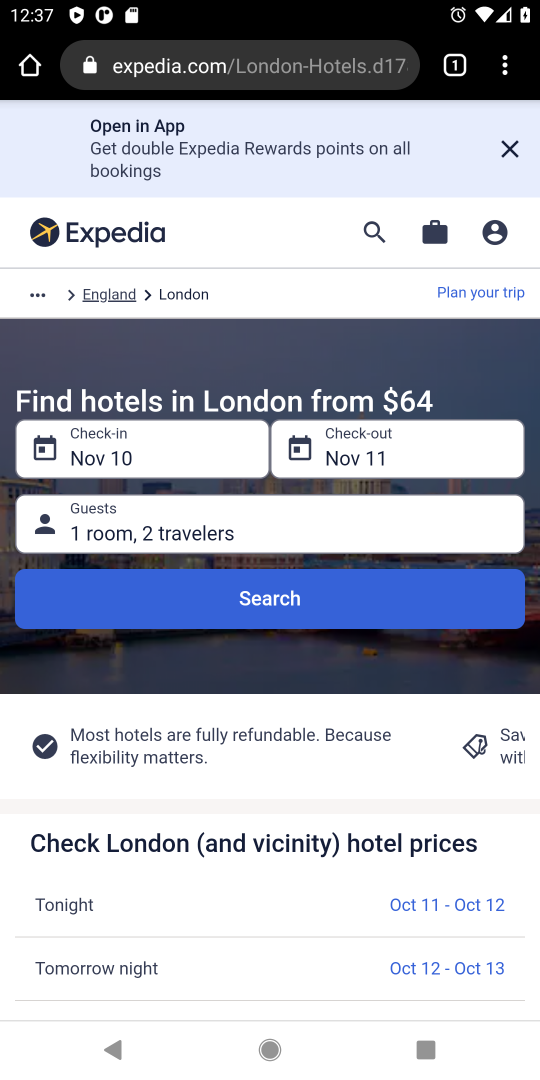
Step 52: click (517, 151)
Your task to perform on an android device: Search for flights from Sydney to Buenos aires Image 53: 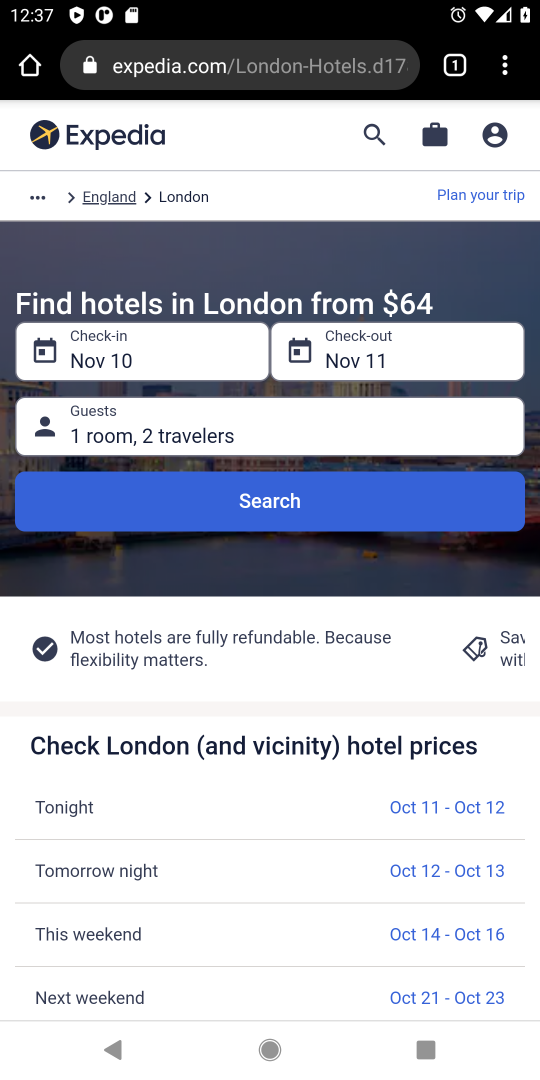
Step 53: task complete